Your task to perform on an android device: star an email in the gmail app Image 0: 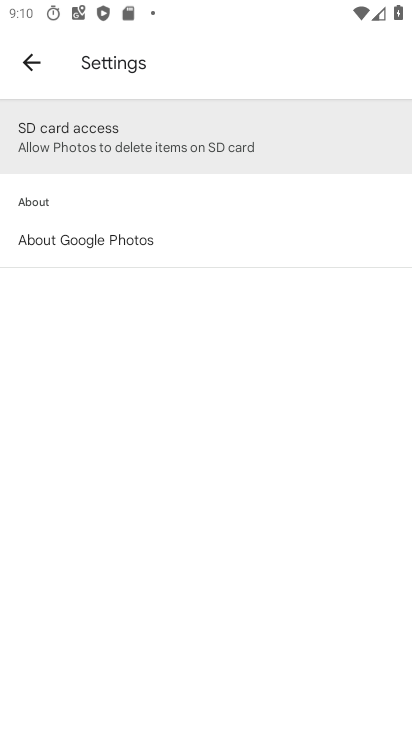
Step 0: press home button
Your task to perform on an android device: star an email in the gmail app Image 1: 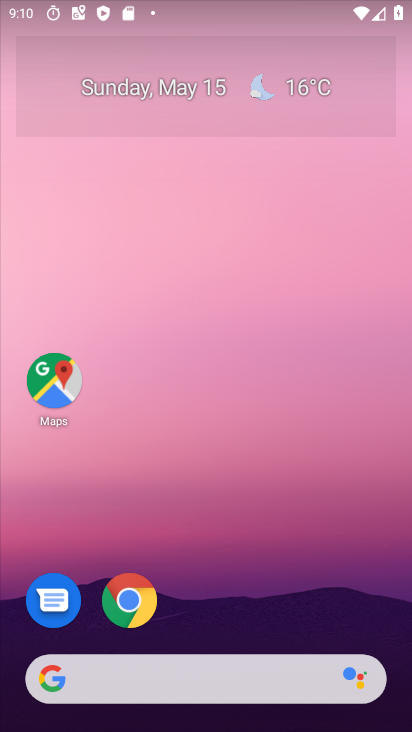
Step 1: drag from (232, 621) to (271, 174)
Your task to perform on an android device: star an email in the gmail app Image 2: 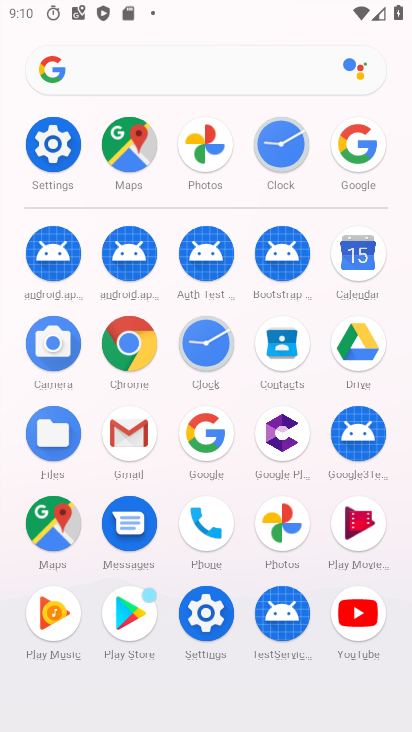
Step 2: click (128, 436)
Your task to perform on an android device: star an email in the gmail app Image 3: 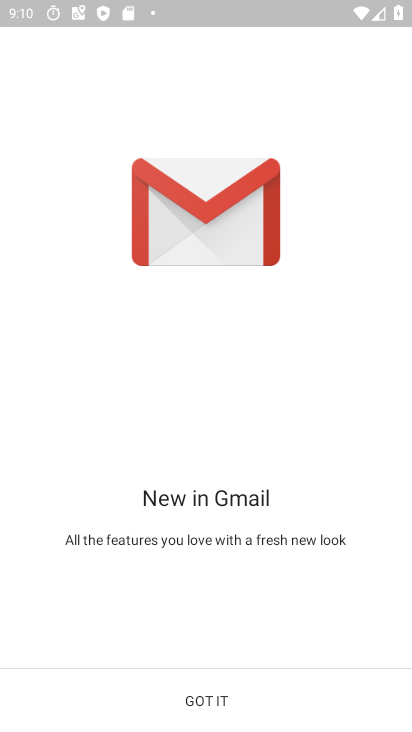
Step 3: click (185, 689)
Your task to perform on an android device: star an email in the gmail app Image 4: 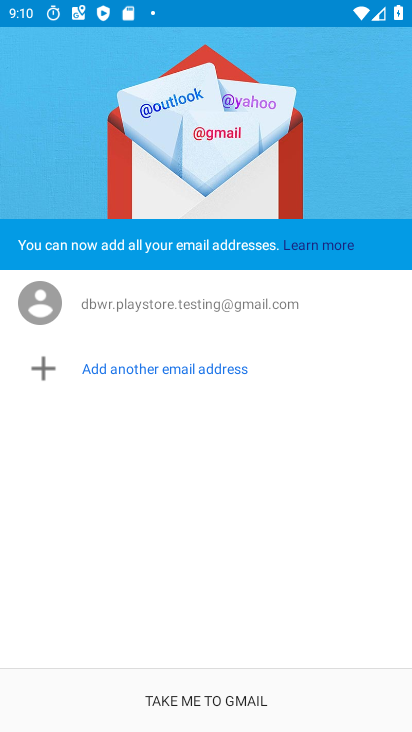
Step 4: click (212, 696)
Your task to perform on an android device: star an email in the gmail app Image 5: 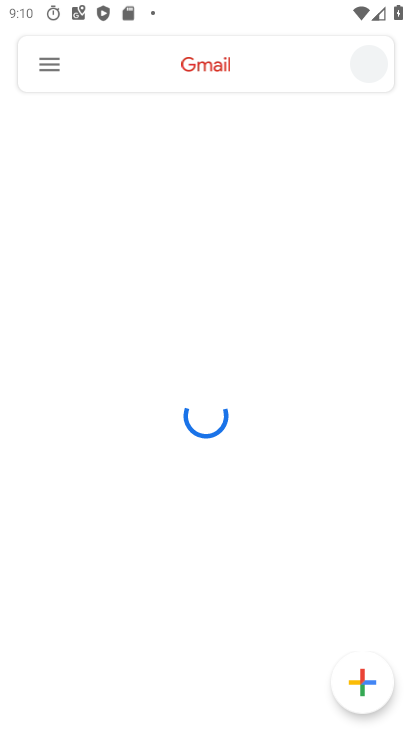
Step 5: click (43, 66)
Your task to perform on an android device: star an email in the gmail app Image 6: 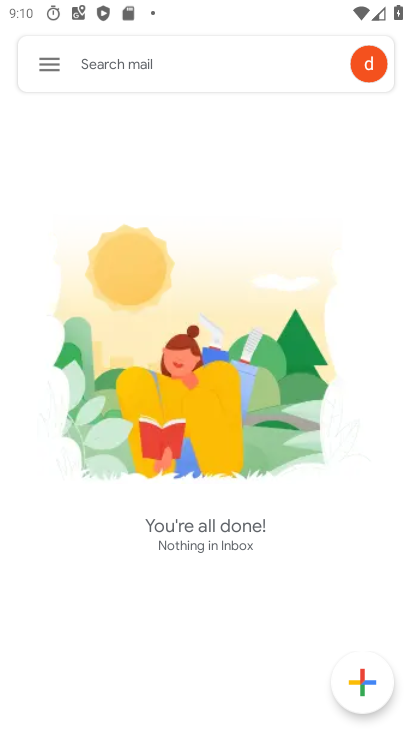
Step 6: click (42, 58)
Your task to perform on an android device: star an email in the gmail app Image 7: 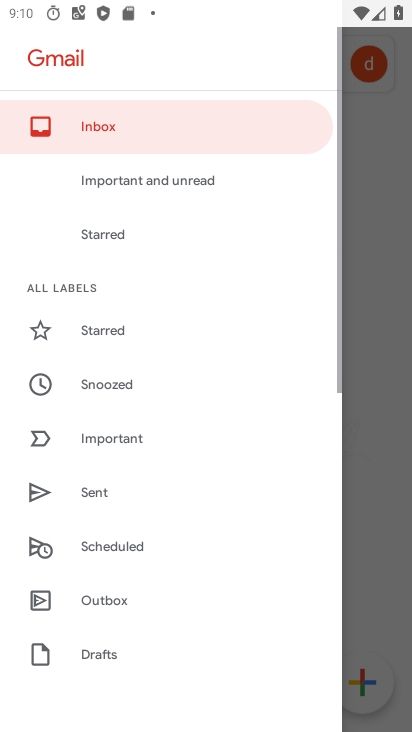
Step 7: drag from (121, 615) to (180, 207)
Your task to perform on an android device: star an email in the gmail app Image 8: 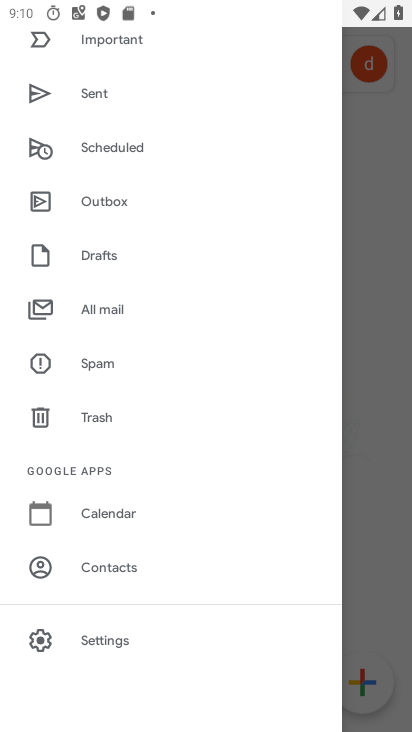
Step 8: click (97, 300)
Your task to perform on an android device: star an email in the gmail app Image 9: 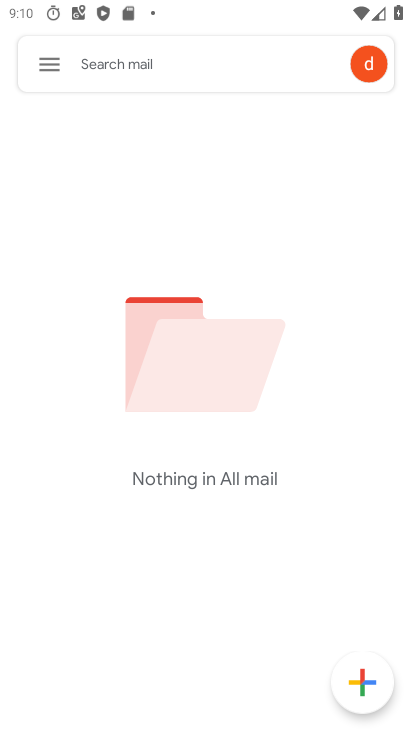
Step 9: task complete